Your task to perform on an android device: change text size in settings app Image 0: 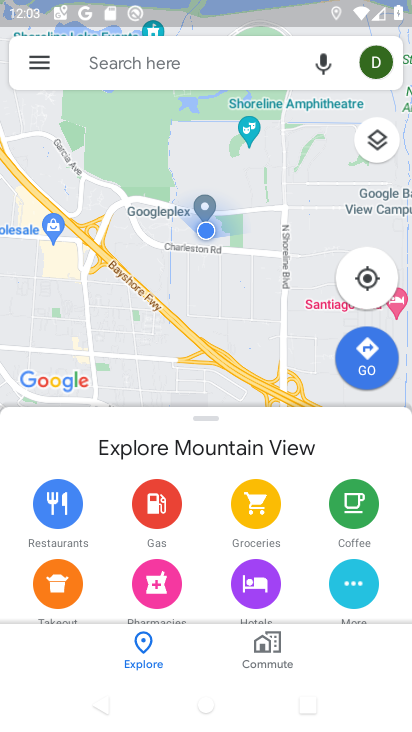
Step 0: press home button
Your task to perform on an android device: change text size in settings app Image 1: 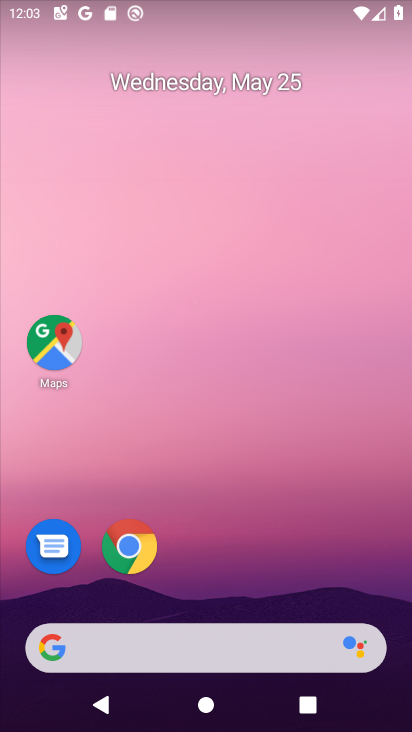
Step 1: drag from (204, 565) to (348, 20)
Your task to perform on an android device: change text size in settings app Image 2: 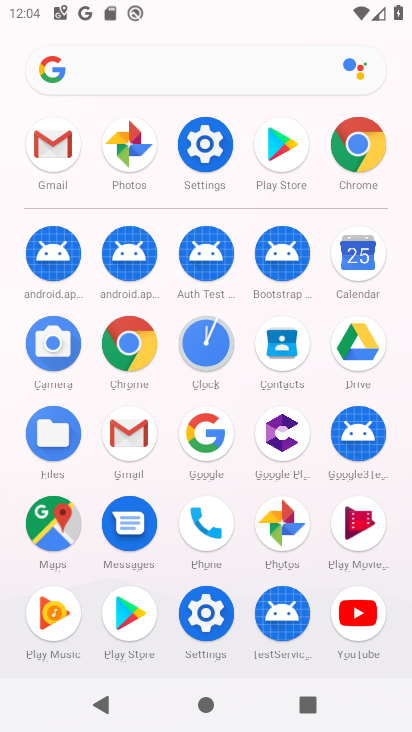
Step 2: click (210, 612)
Your task to perform on an android device: change text size in settings app Image 3: 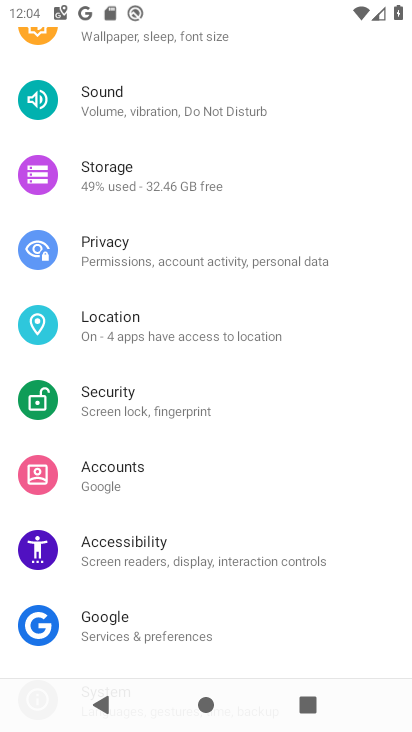
Step 3: drag from (179, 188) to (179, 513)
Your task to perform on an android device: change text size in settings app Image 4: 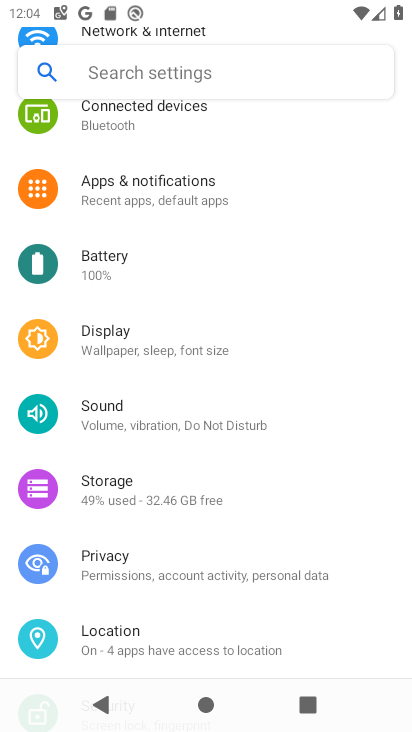
Step 4: click (125, 343)
Your task to perform on an android device: change text size in settings app Image 5: 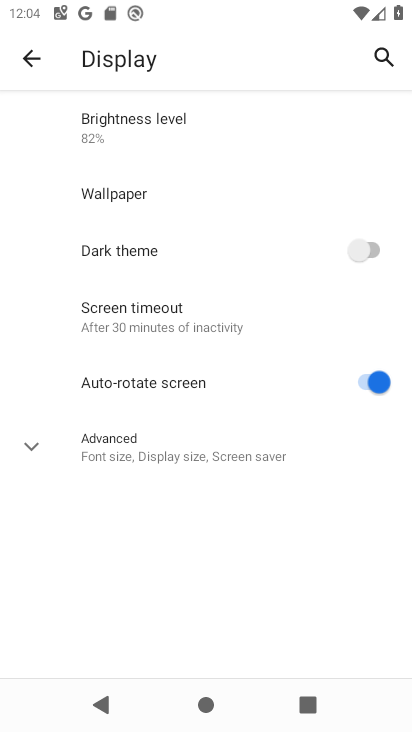
Step 5: click (133, 445)
Your task to perform on an android device: change text size in settings app Image 6: 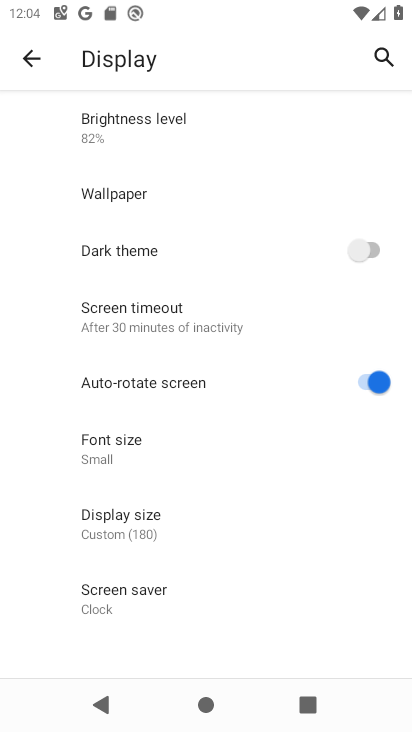
Step 6: click (144, 458)
Your task to perform on an android device: change text size in settings app Image 7: 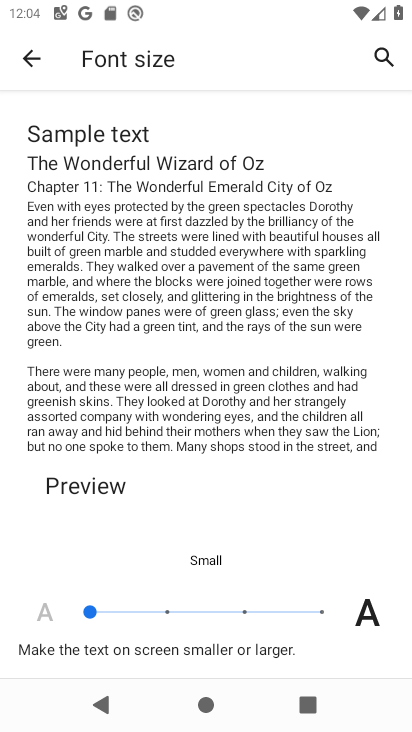
Step 7: click (166, 616)
Your task to perform on an android device: change text size in settings app Image 8: 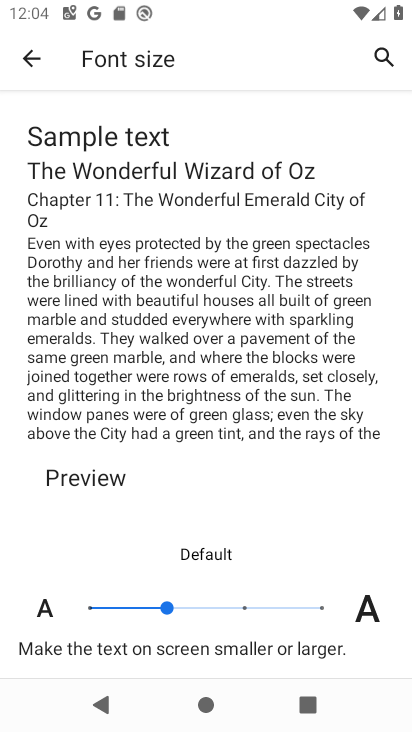
Step 8: task complete